Your task to perform on an android device: Go to accessibility settings Image 0: 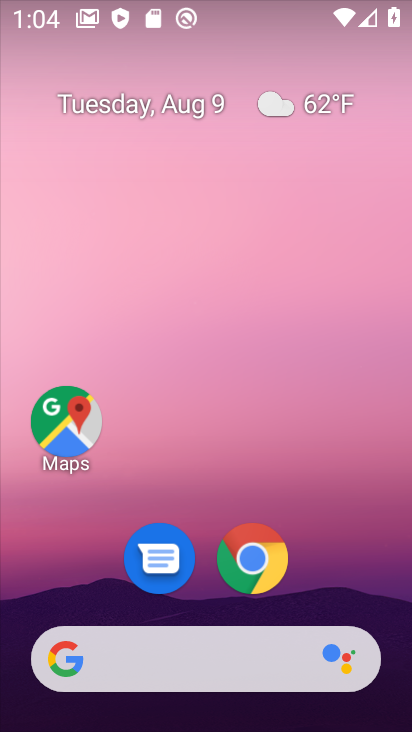
Step 0: drag from (358, 565) to (320, 185)
Your task to perform on an android device: Go to accessibility settings Image 1: 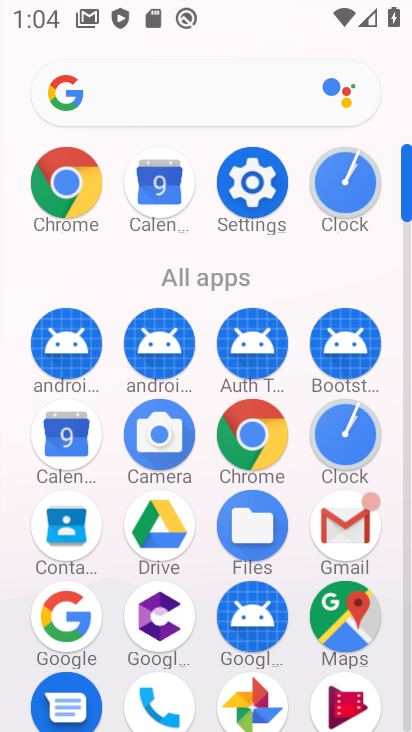
Step 1: click (236, 176)
Your task to perform on an android device: Go to accessibility settings Image 2: 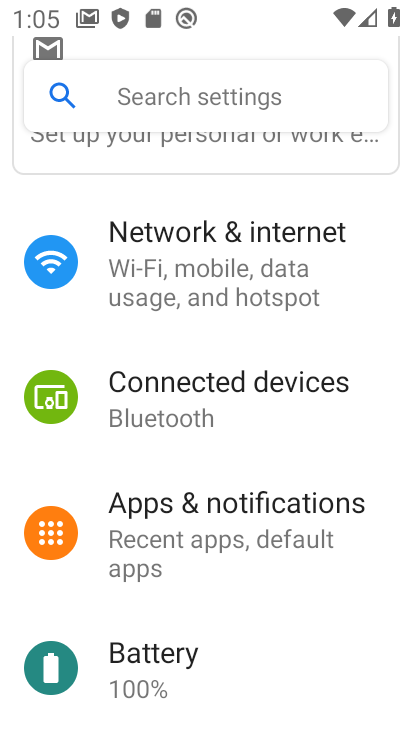
Step 2: drag from (284, 592) to (236, 169)
Your task to perform on an android device: Go to accessibility settings Image 3: 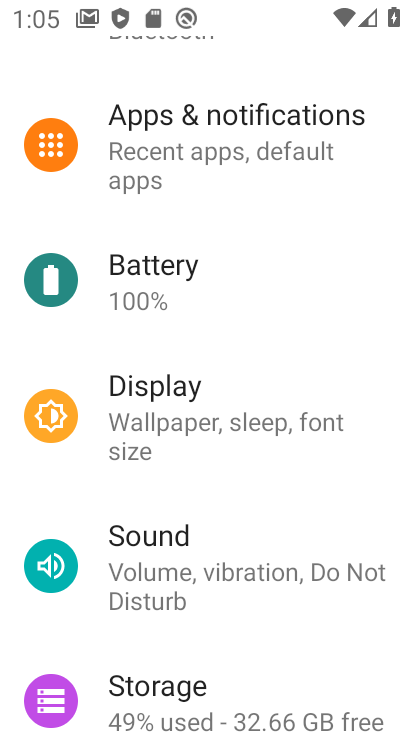
Step 3: drag from (248, 472) to (230, 193)
Your task to perform on an android device: Go to accessibility settings Image 4: 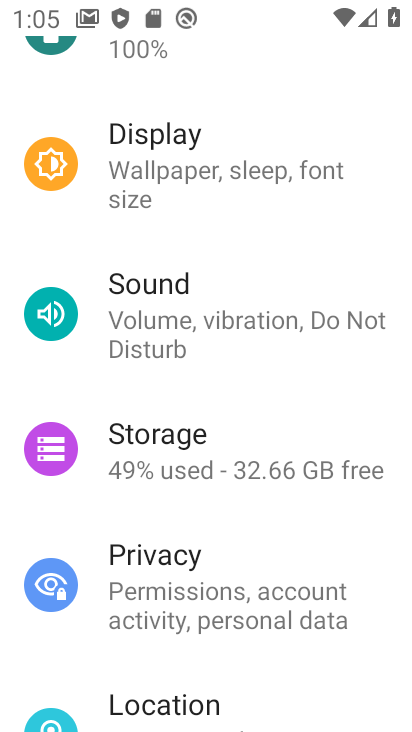
Step 4: drag from (300, 615) to (248, 236)
Your task to perform on an android device: Go to accessibility settings Image 5: 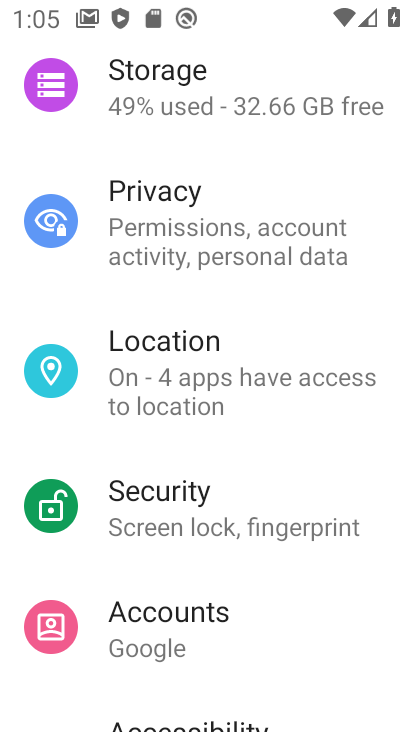
Step 5: drag from (299, 558) to (275, 224)
Your task to perform on an android device: Go to accessibility settings Image 6: 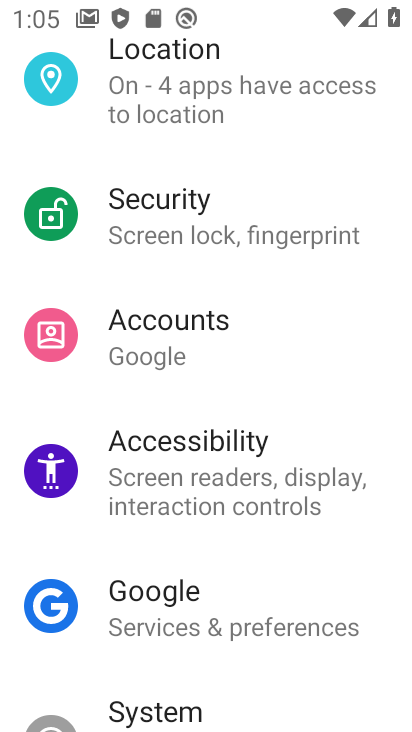
Step 6: click (207, 466)
Your task to perform on an android device: Go to accessibility settings Image 7: 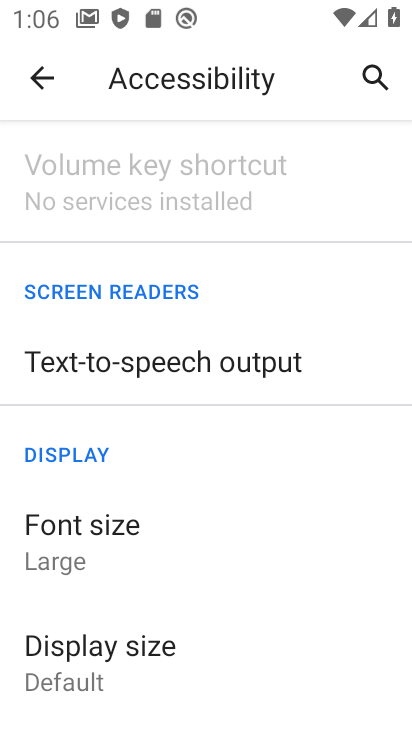
Step 7: task complete